Your task to perform on an android device: delete browsing data in the chrome app Image 0: 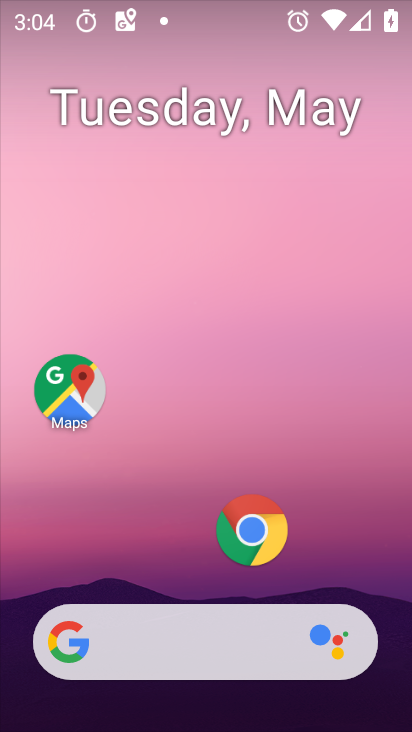
Step 0: click (225, 549)
Your task to perform on an android device: delete browsing data in the chrome app Image 1: 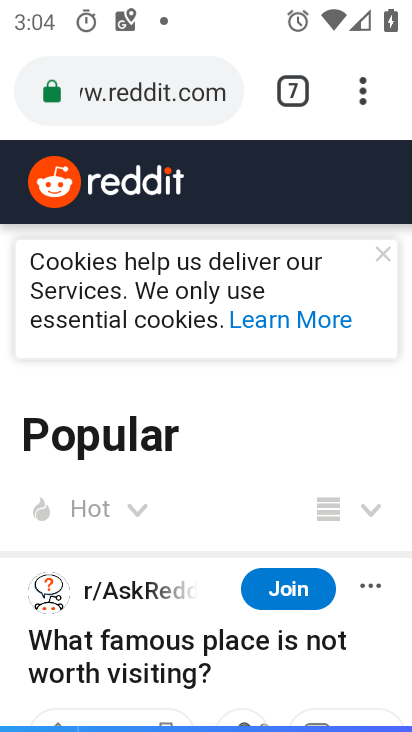
Step 1: click (358, 102)
Your task to perform on an android device: delete browsing data in the chrome app Image 2: 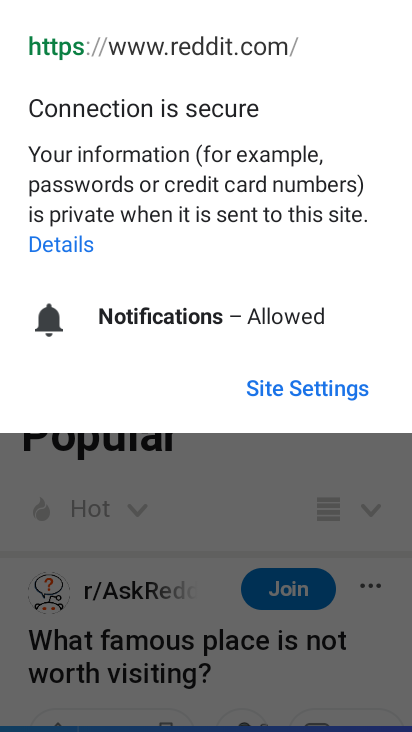
Step 2: click (325, 516)
Your task to perform on an android device: delete browsing data in the chrome app Image 3: 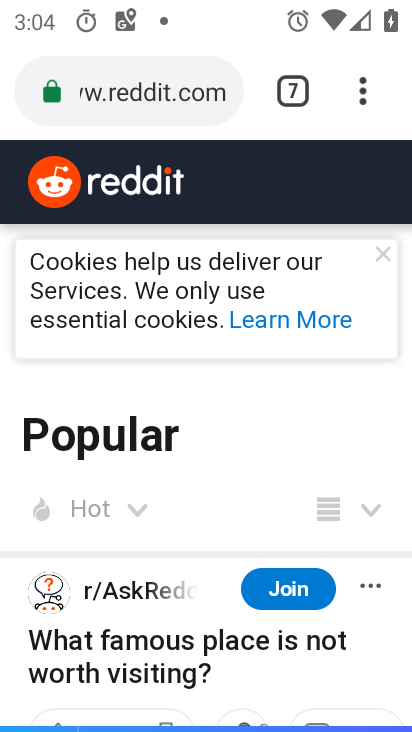
Step 3: click (366, 69)
Your task to perform on an android device: delete browsing data in the chrome app Image 4: 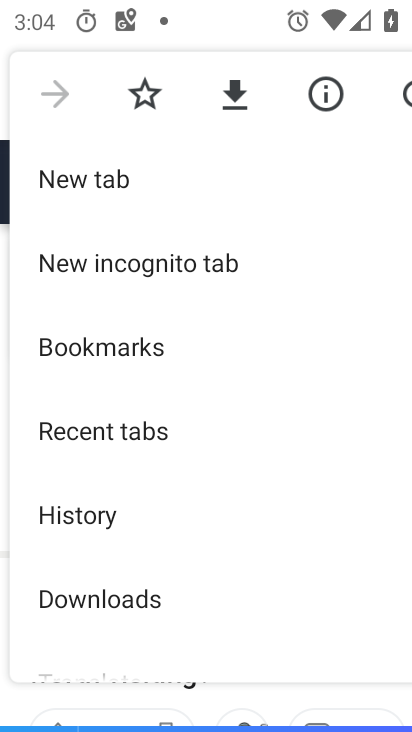
Step 4: click (109, 518)
Your task to perform on an android device: delete browsing data in the chrome app Image 5: 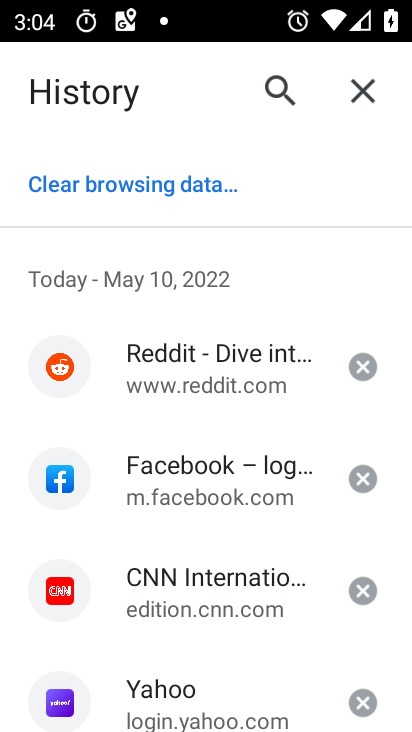
Step 5: click (116, 180)
Your task to perform on an android device: delete browsing data in the chrome app Image 6: 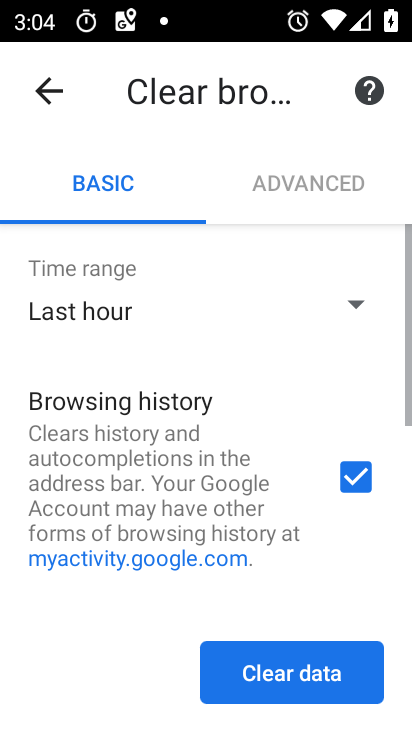
Step 6: click (332, 713)
Your task to perform on an android device: delete browsing data in the chrome app Image 7: 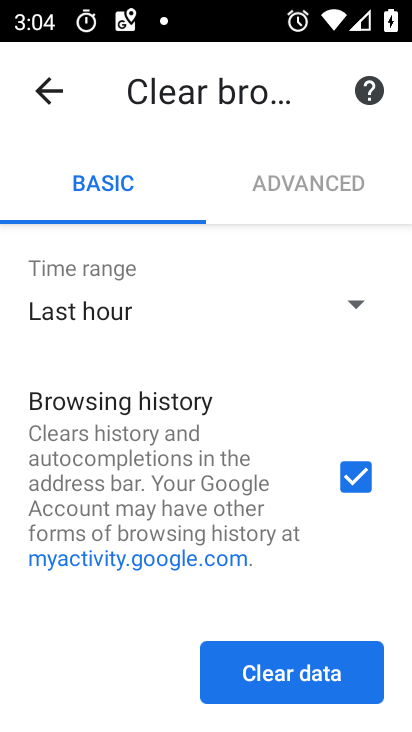
Step 7: click (314, 696)
Your task to perform on an android device: delete browsing data in the chrome app Image 8: 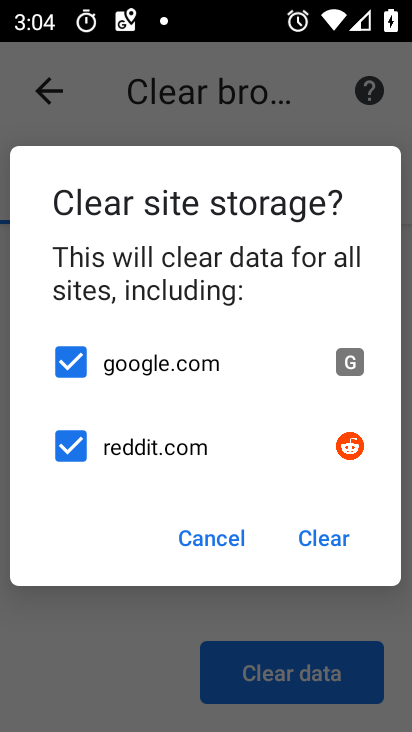
Step 8: click (299, 531)
Your task to perform on an android device: delete browsing data in the chrome app Image 9: 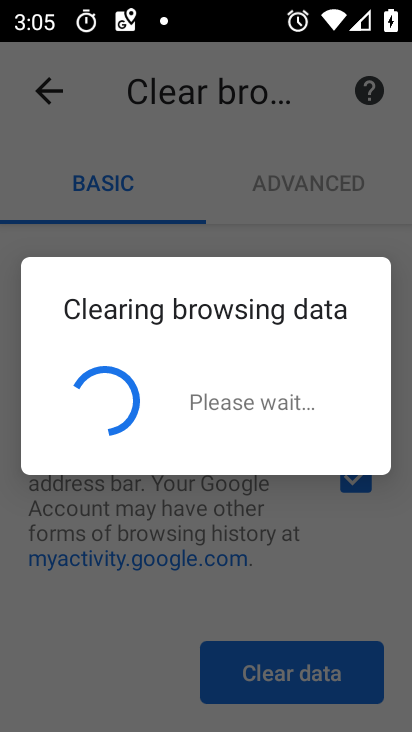
Step 9: task complete